Your task to perform on an android device: Open CNN.com Image 0: 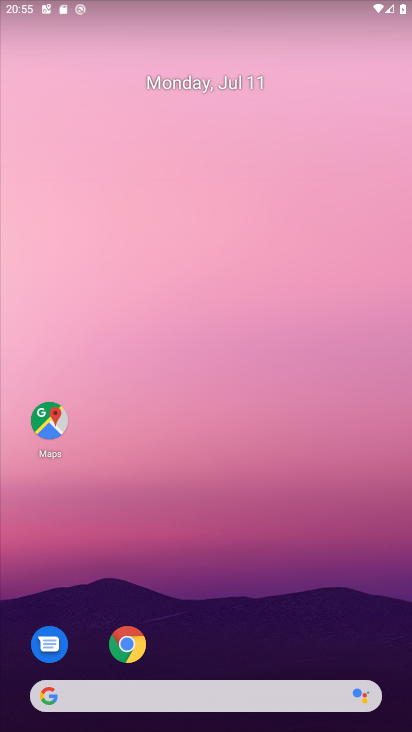
Step 0: drag from (245, 668) to (226, 180)
Your task to perform on an android device: Open CNN.com Image 1: 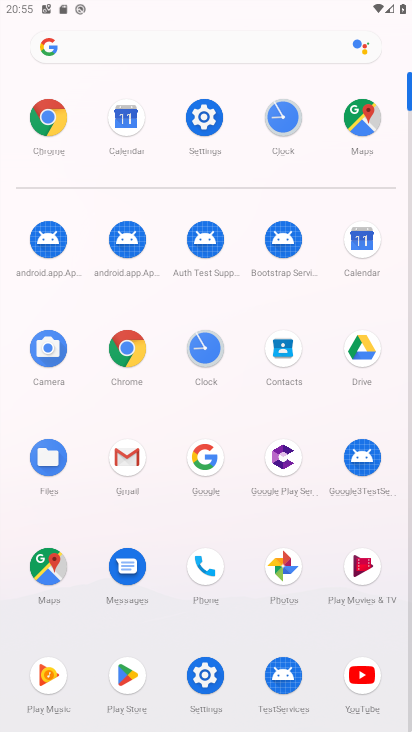
Step 1: click (123, 338)
Your task to perform on an android device: Open CNN.com Image 2: 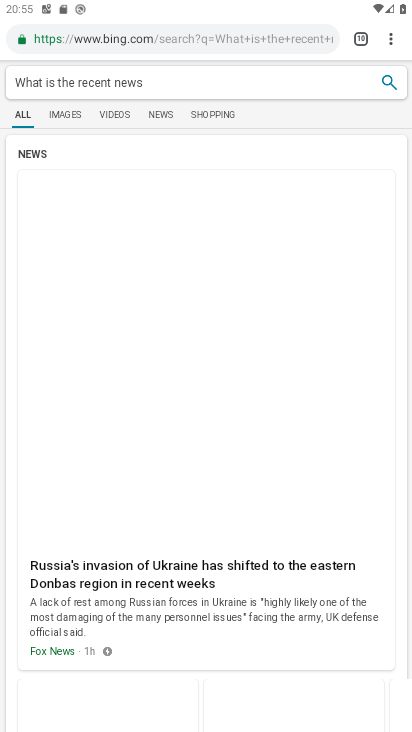
Step 2: click (387, 35)
Your task to perform on an android device: Open CNN.com Image 3: 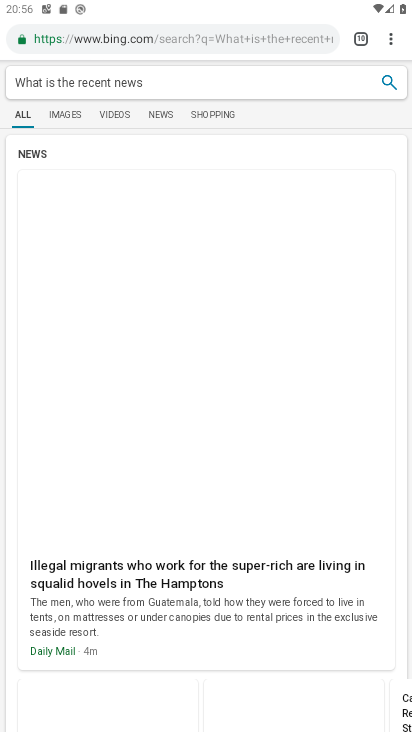
Step 3: click (384, 38)
Your task to perform on an android device: Open CNN.com Image 4: 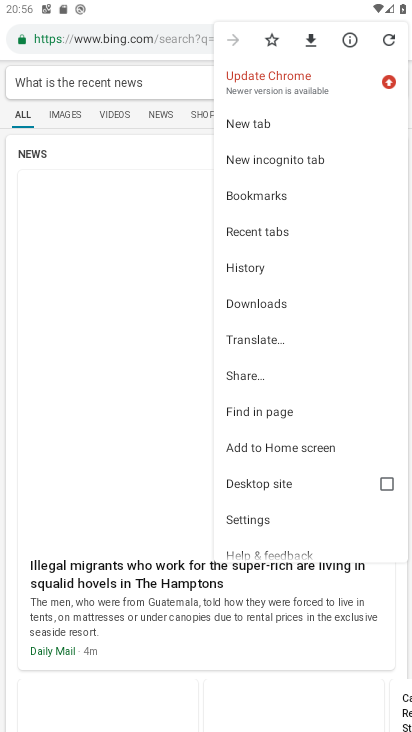
Step 4: click (254, 128)
Your task to perform on an android device: Open CNN.com Image 5: 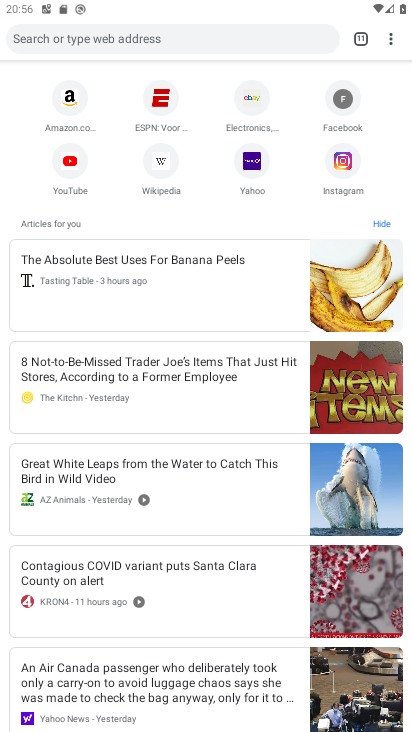
Step 5: drag from (362, 722) to (39, 727)
Your task to perform on an android device: Open CNN.com Image 6: 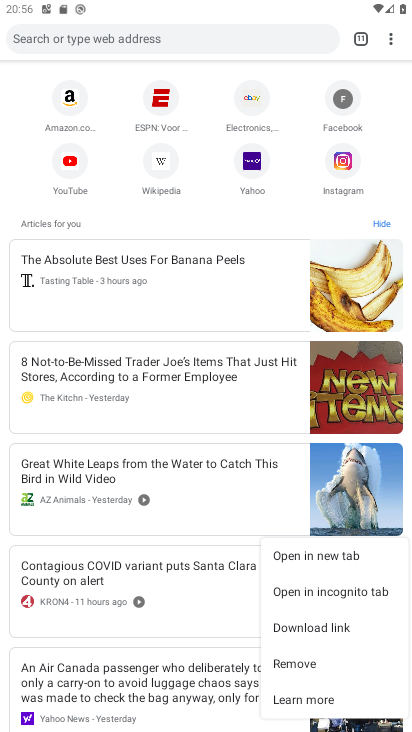
Step 6: click (26, 724)
Your task to perform on an android device: Open CNN.com Image 7: 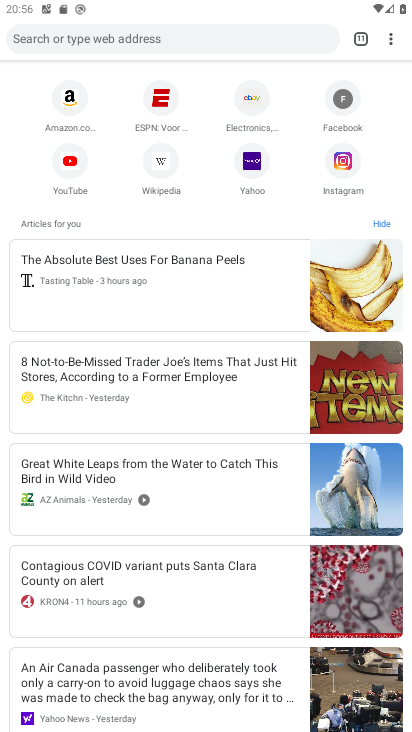
Step 7: click (107, 620)
Your task to perform on an android device: Open CNN.com Image 8: 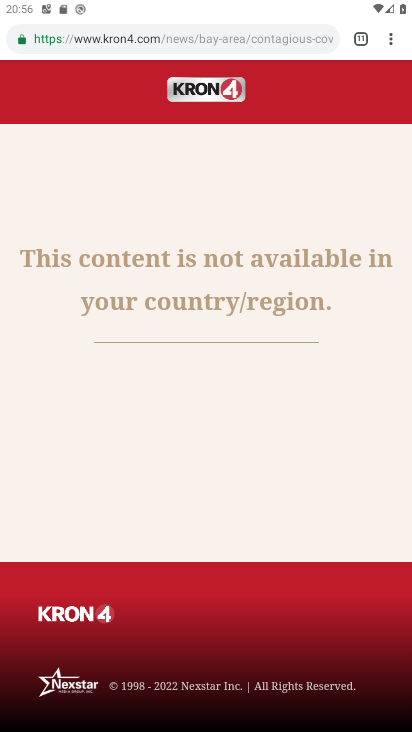
Step 8: press back button
Your task to perform on an android device: Open CNN.com Image 9: 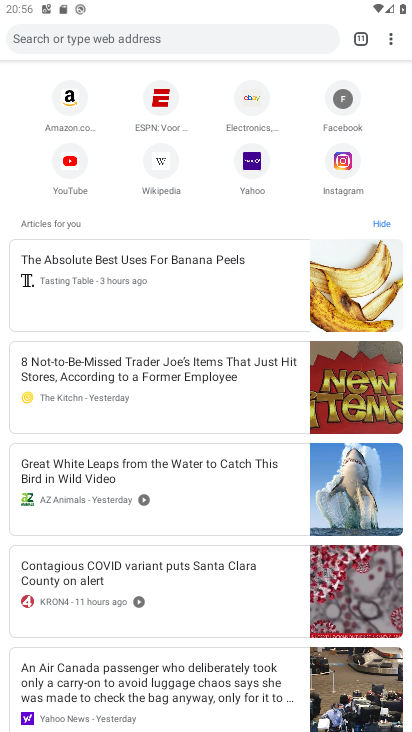
Step 9: click (219, 31)
Your task to perform on an android device: Open CNN.com Image 10: 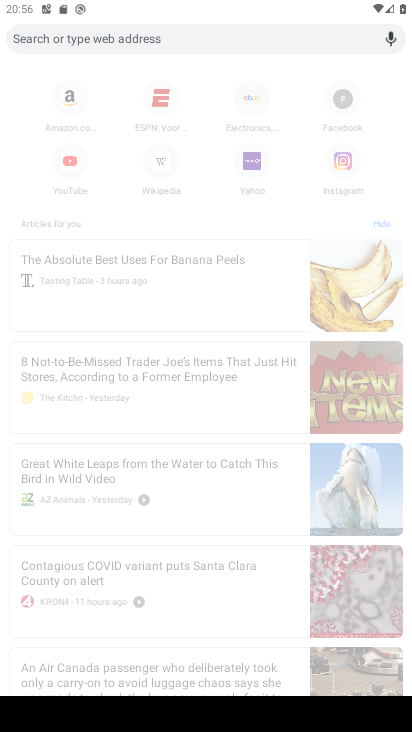
Step 10: type " CNN.com "
Your task to perform on an android device: Open CNN.com Image 11: 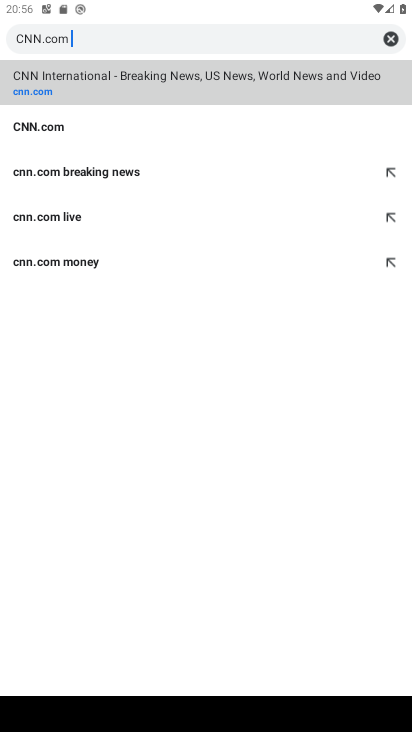
Step 11: click (50, 125)
Your task to perform on an android device: Open CNN.com Image 12: 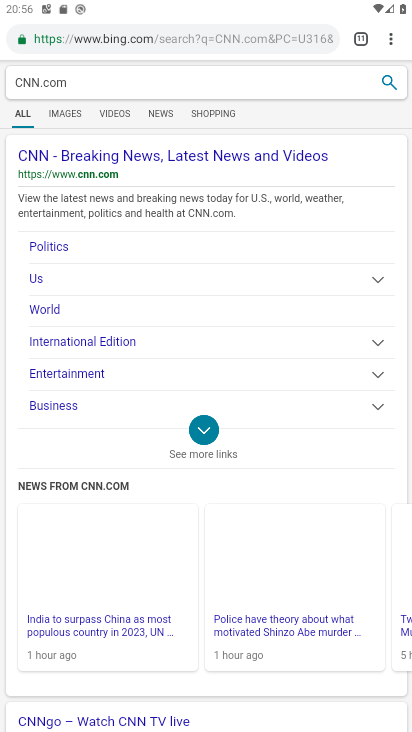
Step 12: task complete